Your task to perform on an android device: search for accent chairs on article.com Image 0: 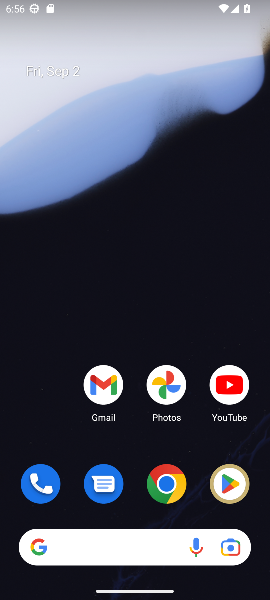
Step 0: click (165, 478)
Your task to perform on an android device: search for accent chairs on article.com Image 1: 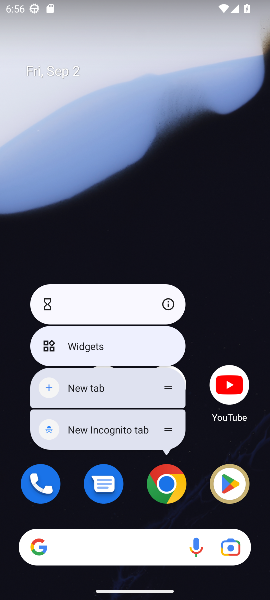
Step 1: click (165, 478)
Your task to perform on an android device: search for accent chairs on article.com Image 2: 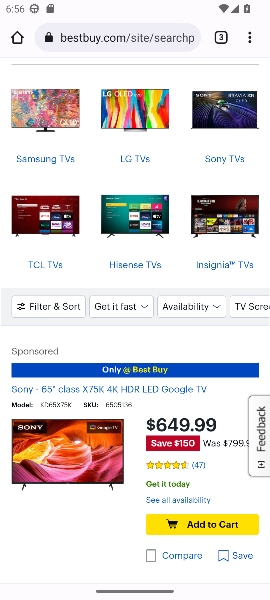
Step 2: click (163, 32)
Your task to perform on an android device: search for accent chairs on article.com Image 3: 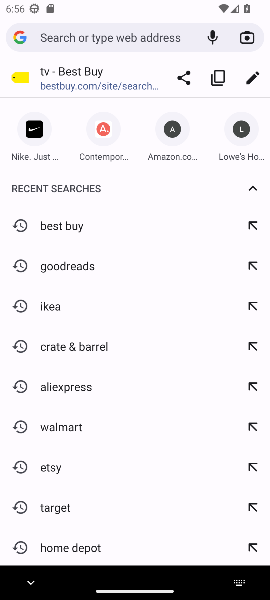
Step 3: type "article.com"
Your task to perform on an android device: search for accent chairs on article.com Image 4: 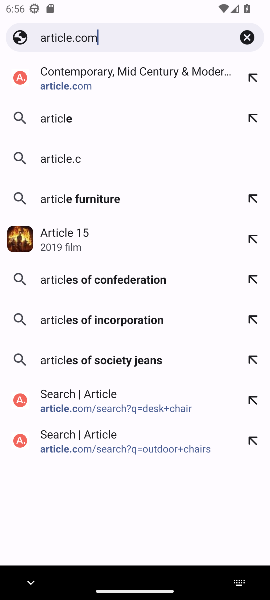
Step 4: press enter
Your task to perform on an android device: search for accent chairs on article.com Image 5: 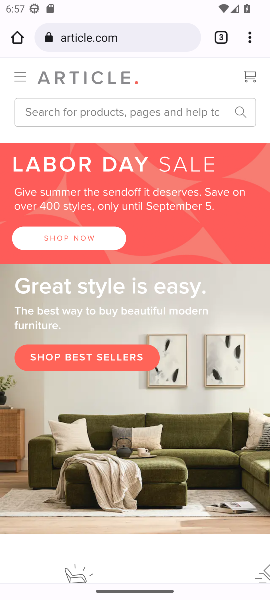
Step 5: click (160, 105)
Your task to perform on an android device: search for accent chairs on article.com Image 6: 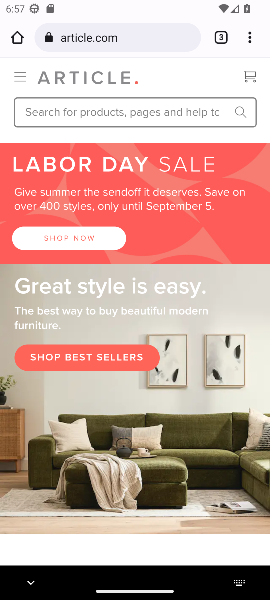
Step 6: type "accent chairs "
Your task to perform on an android device: search for accent chairs on article.com Image 7: 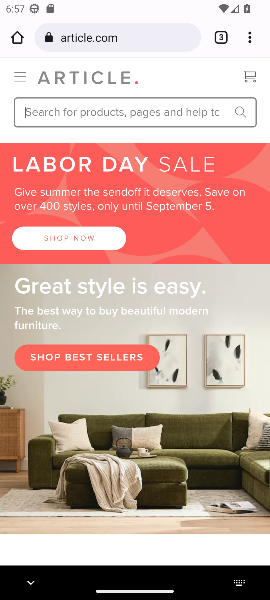
Step 7: press enter
Your task to perform on an android device: search for accent chairs on article.com Image 8: 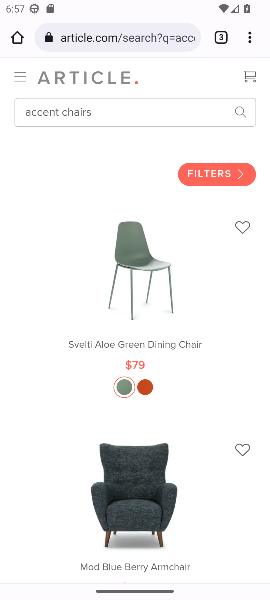
Step 8: task complete